Your task to perform on an android device: Open notification settings Image 0: 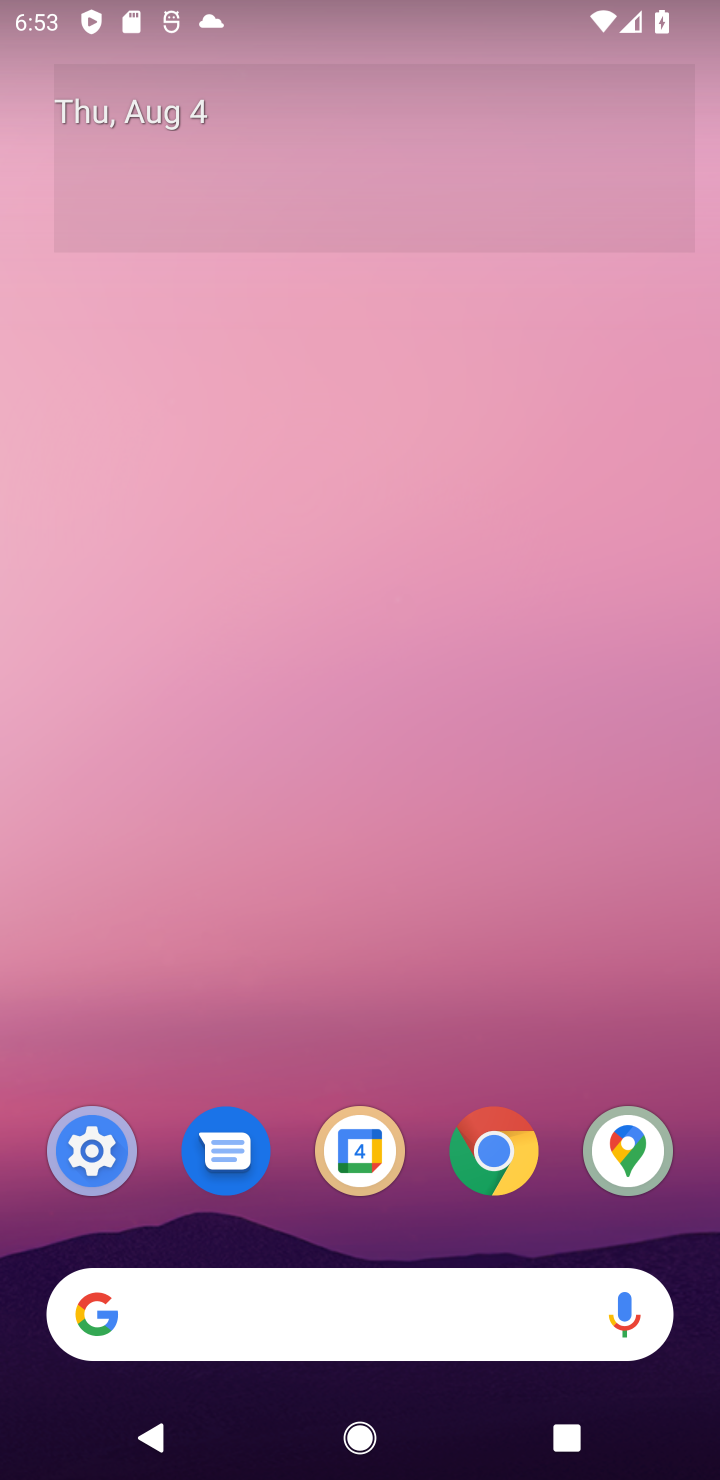
Step 0: drag from (346, 1234) to (363, 21)
Your task to perform on an android device: Open notification settings Image 1: 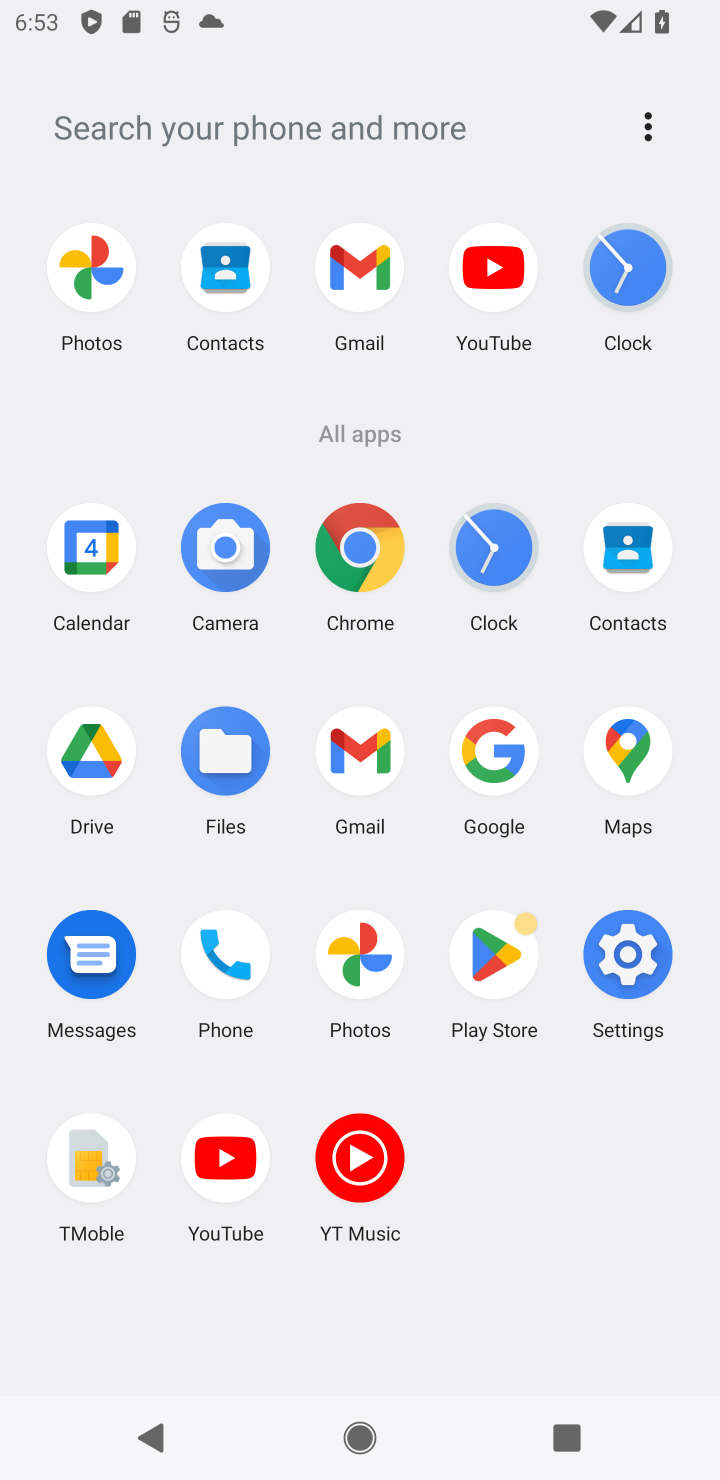
Step 1: click (627, 1003)
Your task to perform on an android device: Open notification settings Image 2: 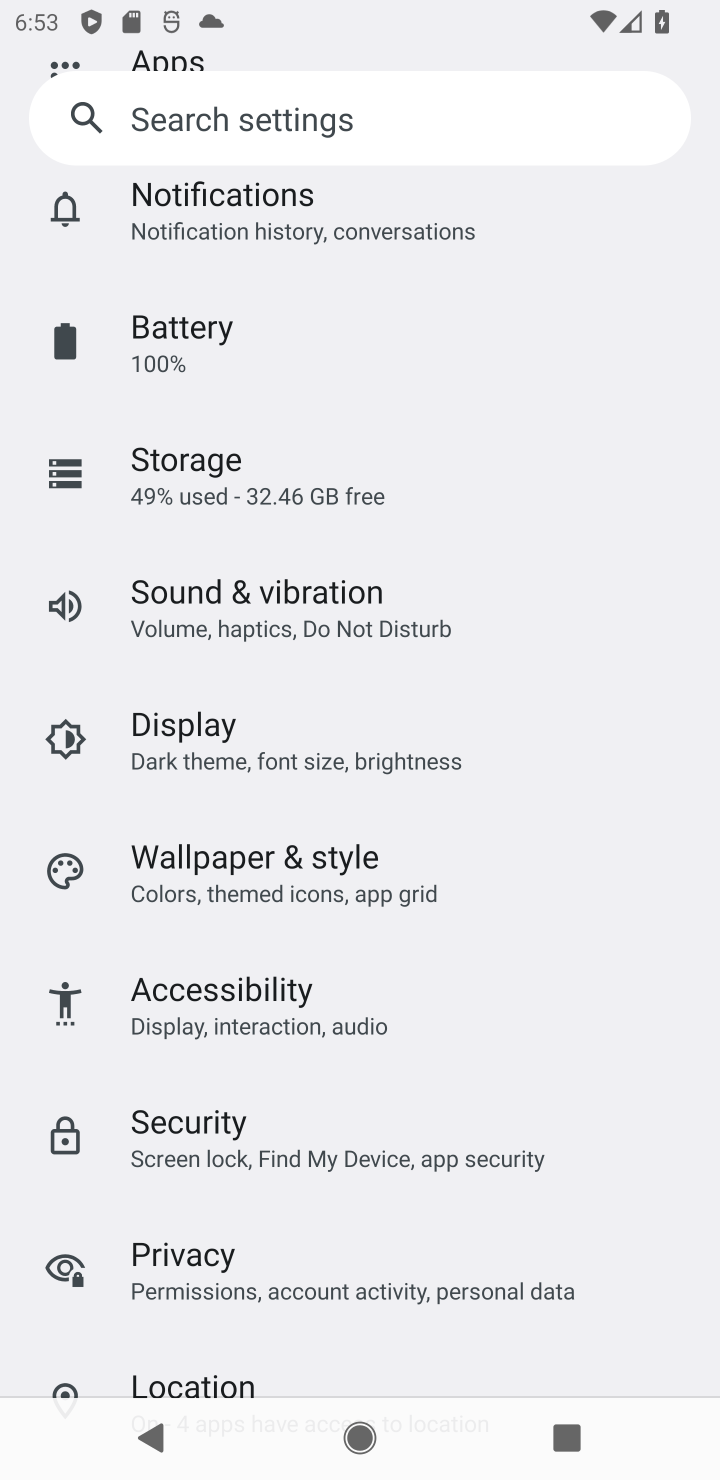
Step 2: drag from (289, 282) to (379, 871)
Your task to perform on an android device: Open notification settings Image 3: 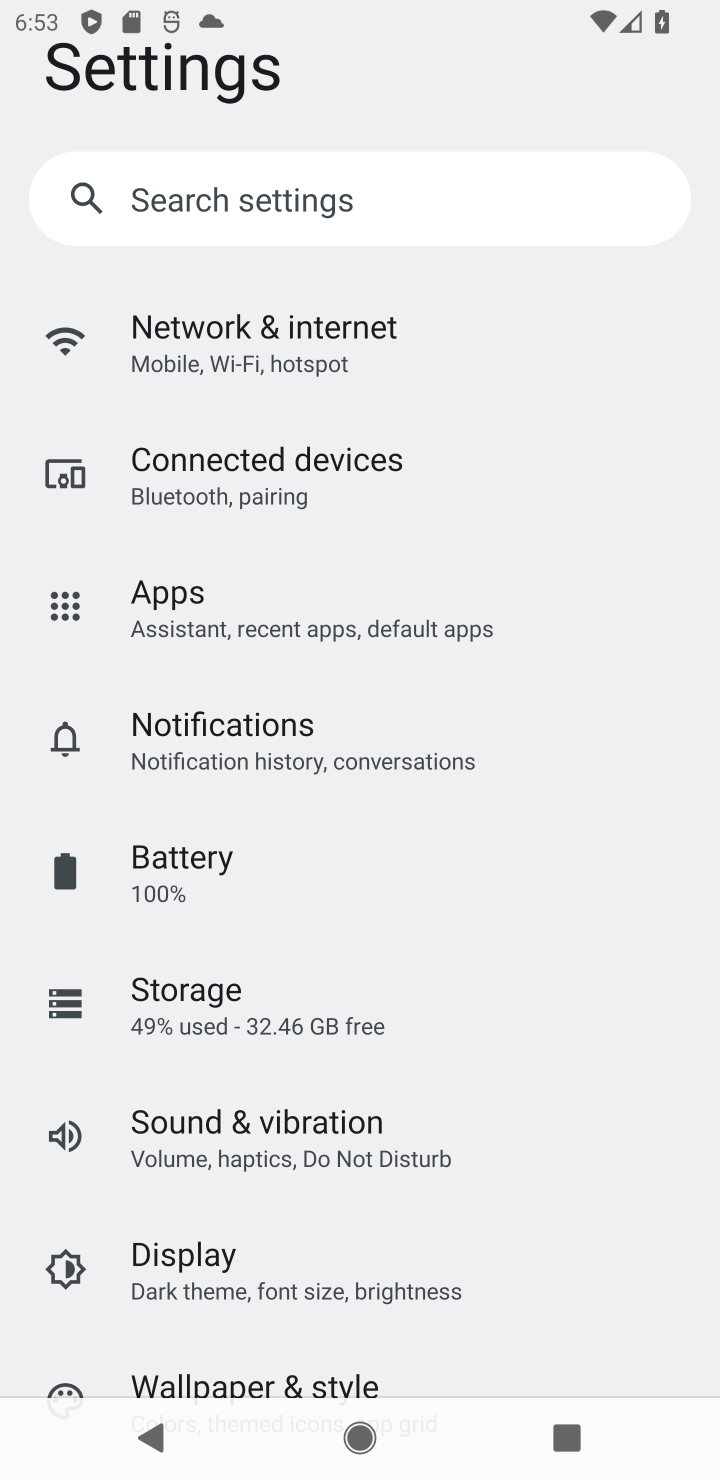
Step 3: click (332, 736)
Your task to perform on an android device: Open notification settings Image 4: 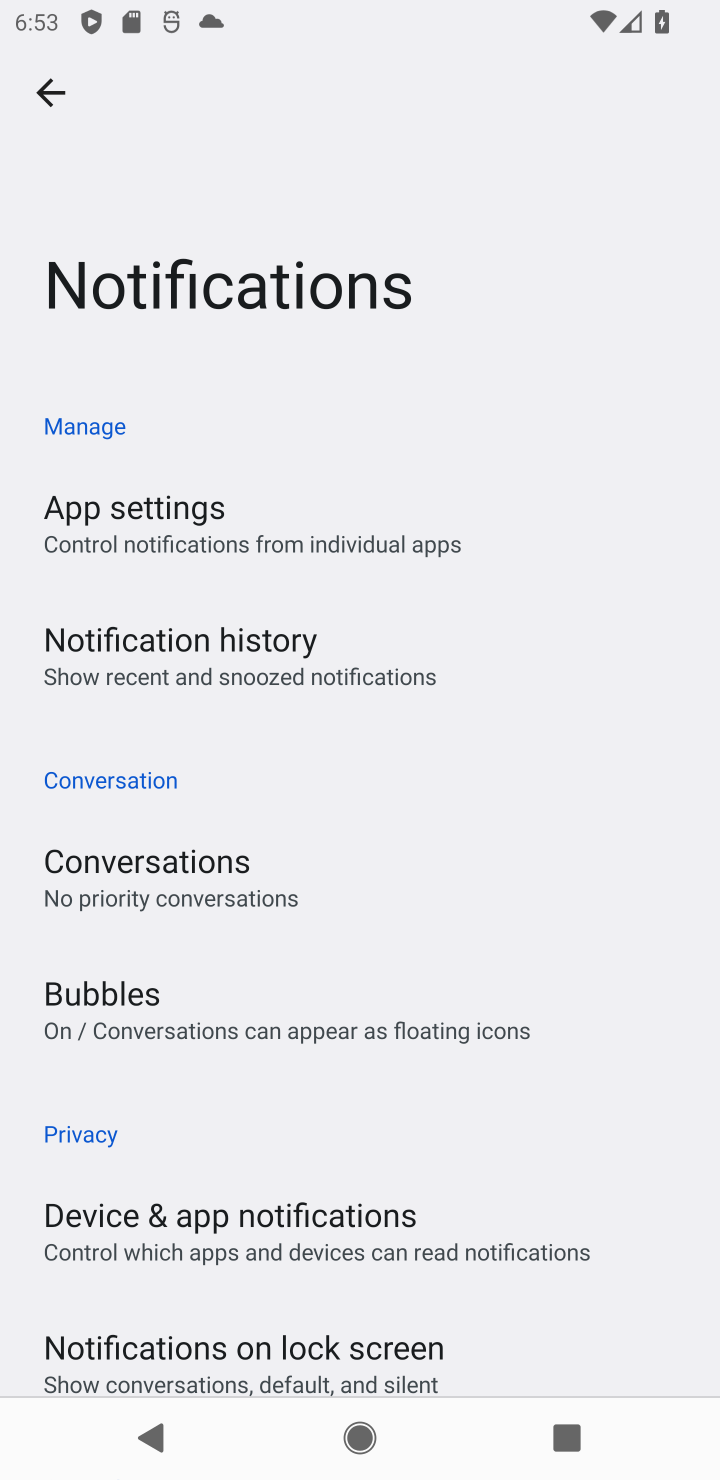
Step 4: task complete